Your task to perform on an android device: What's the weather? Image 0: 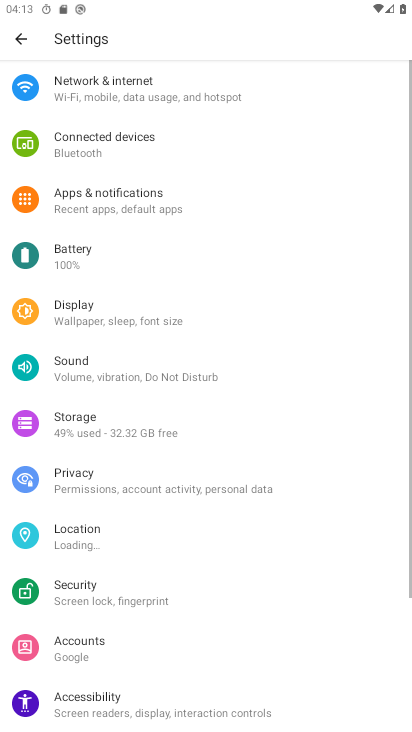
Step 0: press home button
Your task to perform on an android device: What's the weather? Image 1: 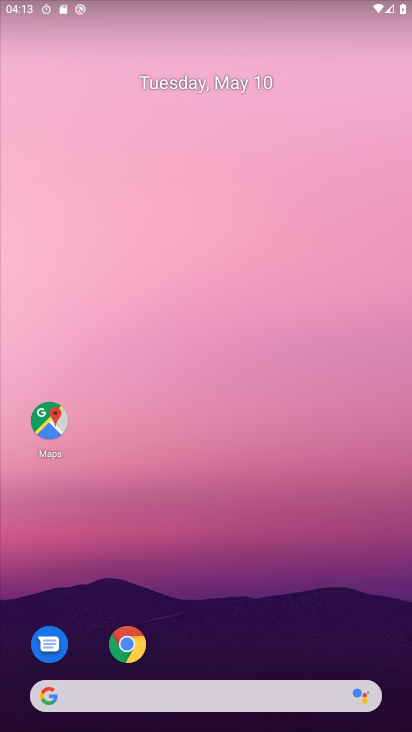
Step 1: drag from (13, 285) to (372, 297)
Your task to perform on an android device: What's the weather? Image 2: 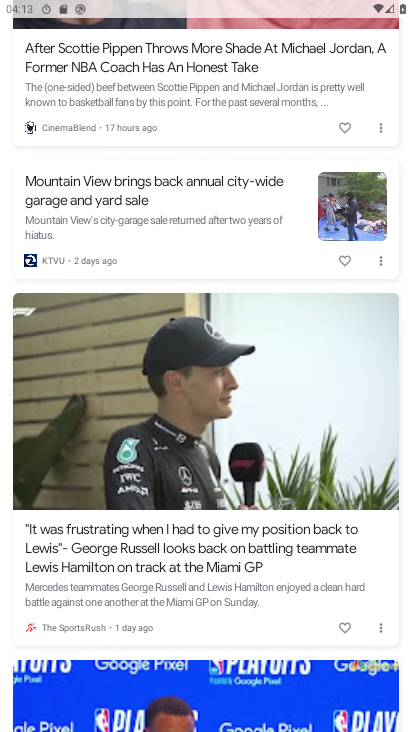
Step 2: drag from (202, 130) to (199, 696)
Your task to perform on an android device: What's the weather? Image 3: 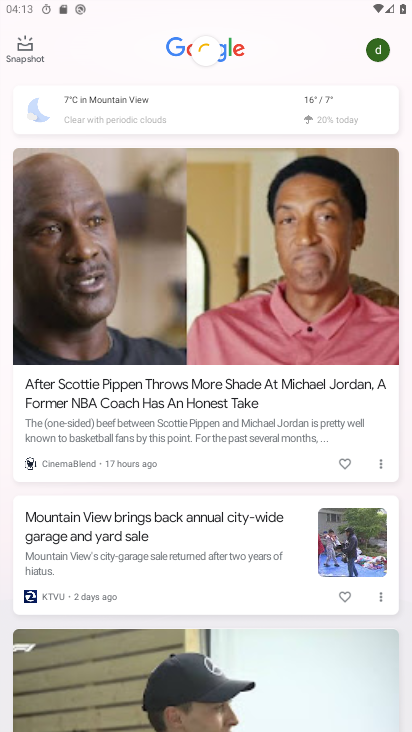
Step 3: click (278, 104)
Your task to perform on an android device: What's the weather? Image 4: 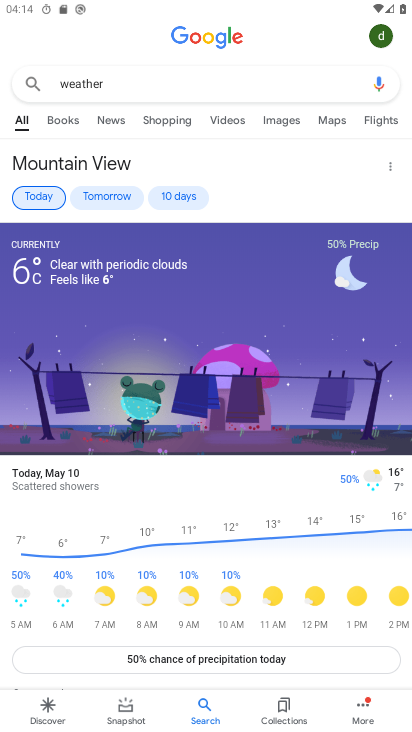
Step 4: task complete